Your task to perform on an android device: empty trash in google photos Image 0: 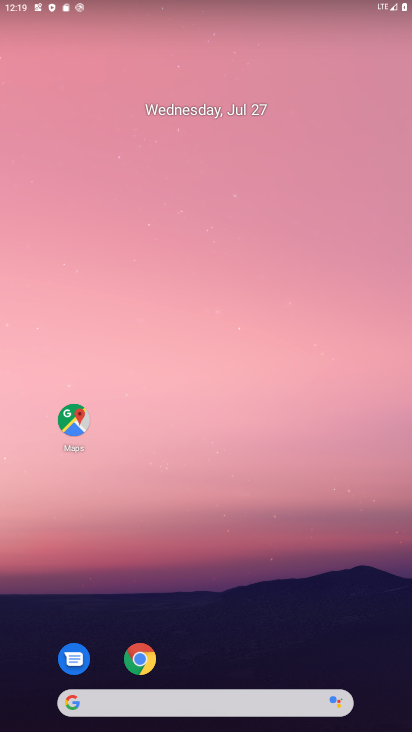
Step 0: drag from (208, 624) to (211, 128)
Your task to perform on an android device: empty trash in google photos Image 1: 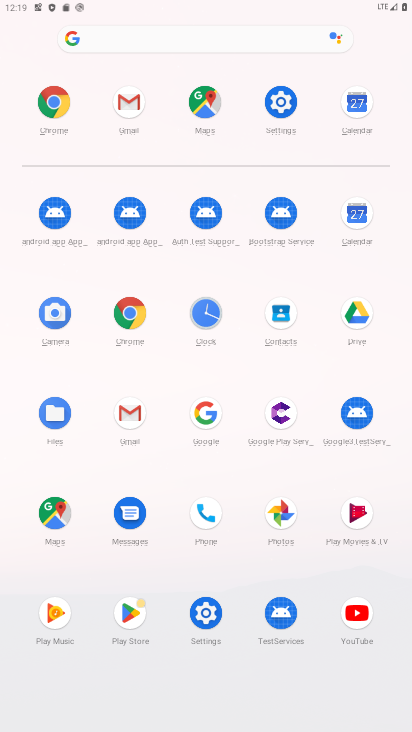
Step 1: click (276, 528)
Your task to perform on an android device: empty trash in google photos Image 2: 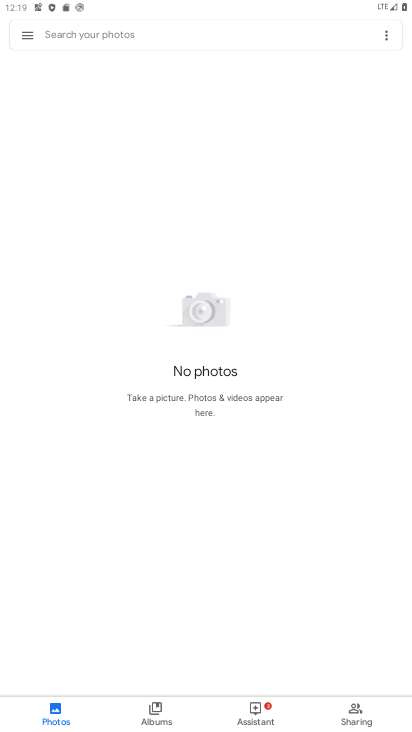
Step 2: click (366, 705)
Your task to perform on an android device: empty trash in google photos Image 3: 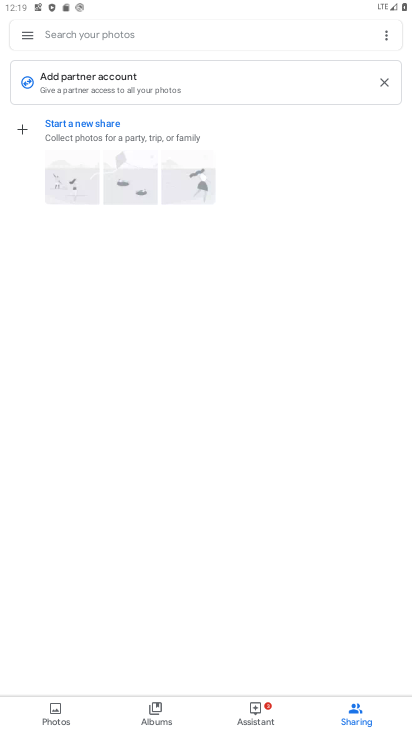
Step 3: click (247, 709)
Your task to perform on an android device: empty trash in google photos Image 4: 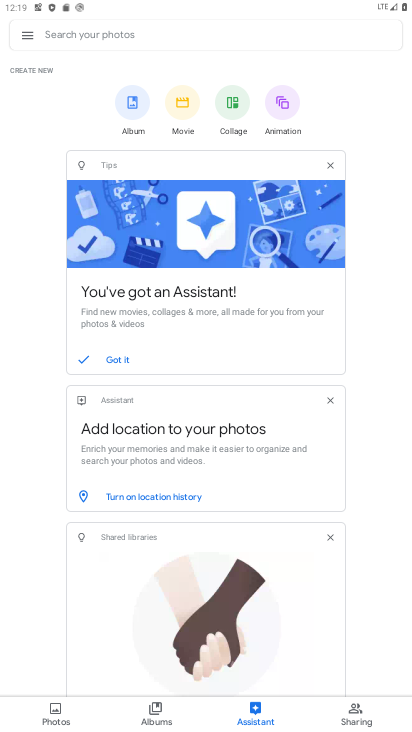
Step 4: click (52, 707)
Your task to perform on an android device: empty trash in google photos Image 5: 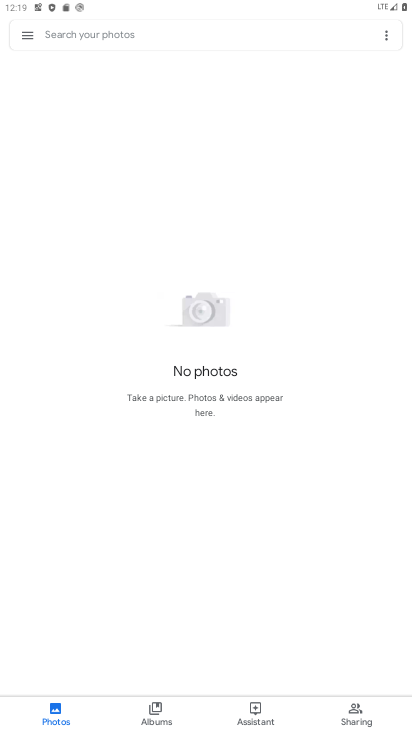
Step 5: click (10, 38)
Your task to perform on an android device: empty trash in google photos Image 6: 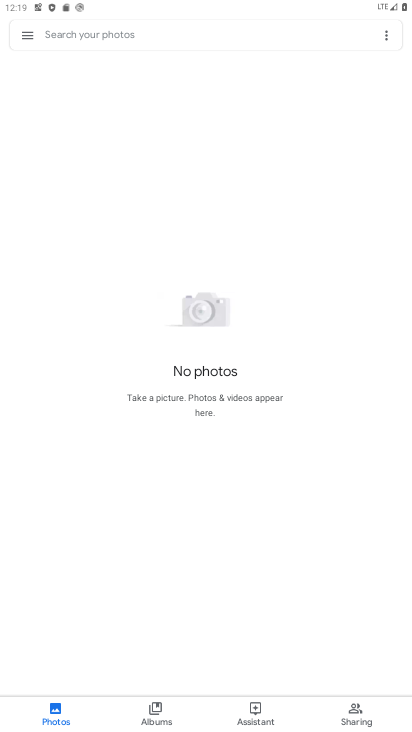
Step 6: click (28, 35)
Your task to perform on an android device: empty trash in google photos Image 7: 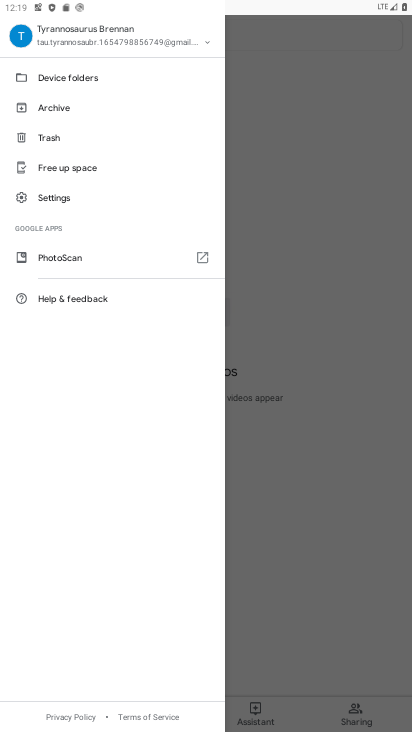
Step 7: click (49, 143)
Your task to perform on an android device: empty trash in google photos Image 8: 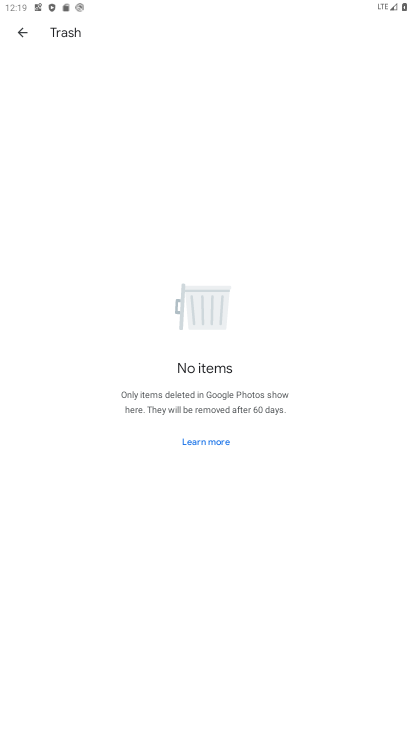
Step 8: task complete